Your task to perform on an android device: Open calendar and show me the third week of next month Image 0: 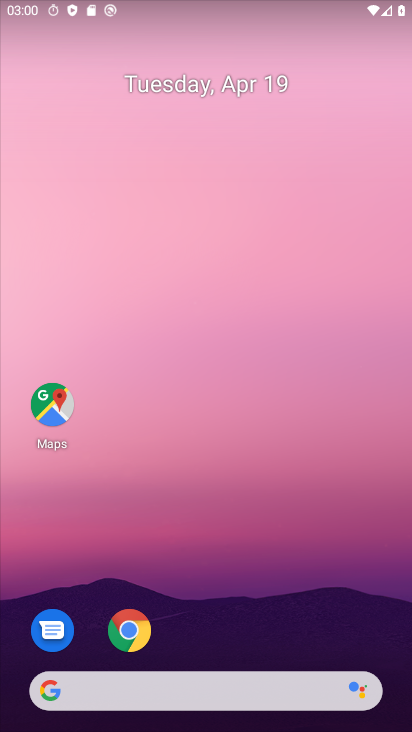
Step 0: drag from (269, 414) to (264, 89)
Your task to perform on an android device: Open calendar and show me the third week of next month Image 1: 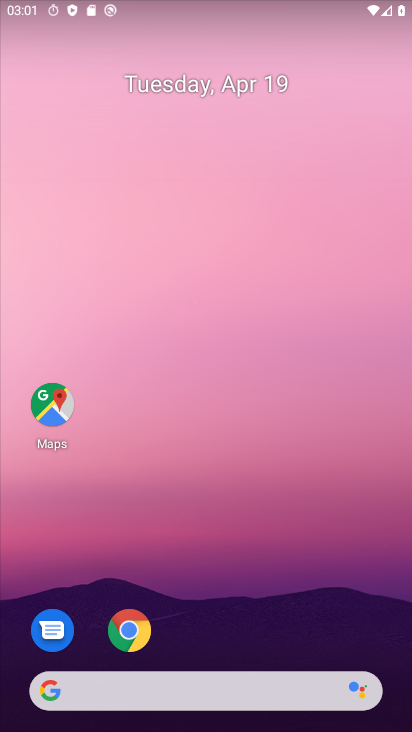
Step 1: drag from (291, 605) to (280, 124)
Your task to perform on an android device: Open calendar and show me the third week of next month Image 2: 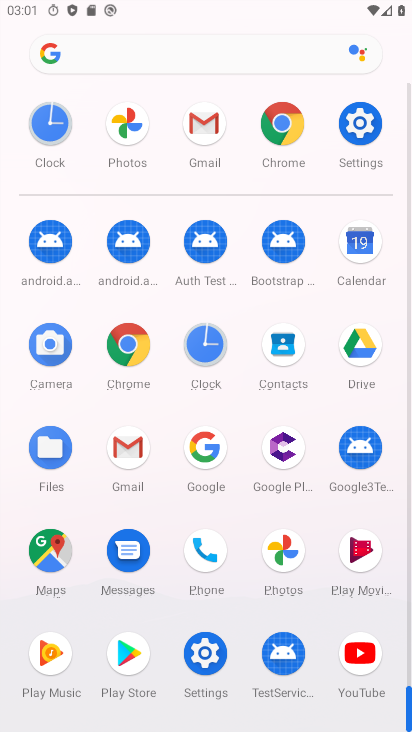
Step 2: click (362, 239)
Your task to perform on an android device: Open calendar and show me the third week of next month Image 3: 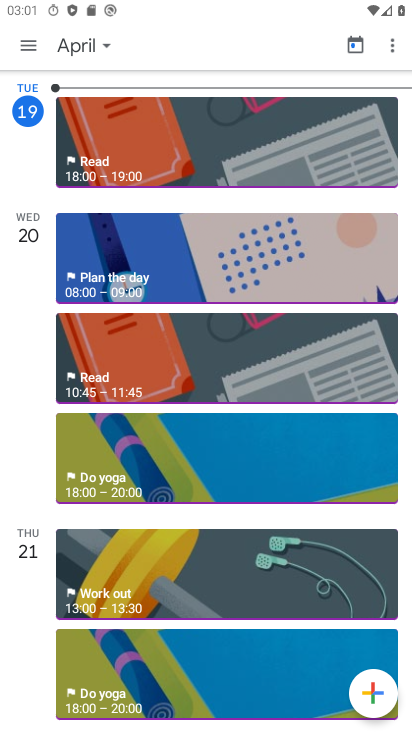
Step 3: click (85, 46)
Your task to perform on an android device: Open calendar and show me the third week of next month Image 4: 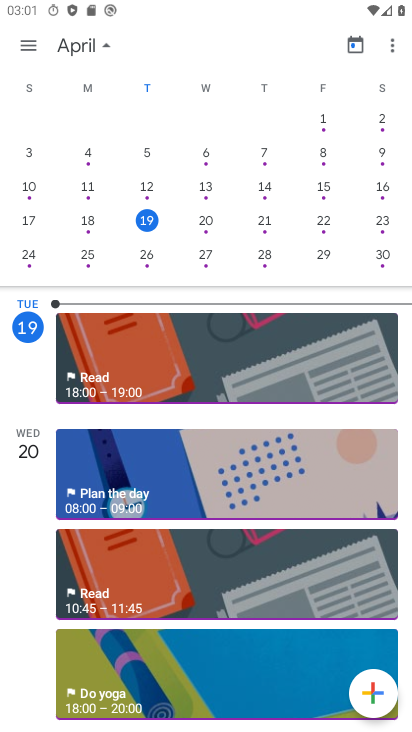
Step 4: drag from (350, 210) to (0, 192)
Your task to perform on an android device: Open calendar and show me the third week of next month Image 5: 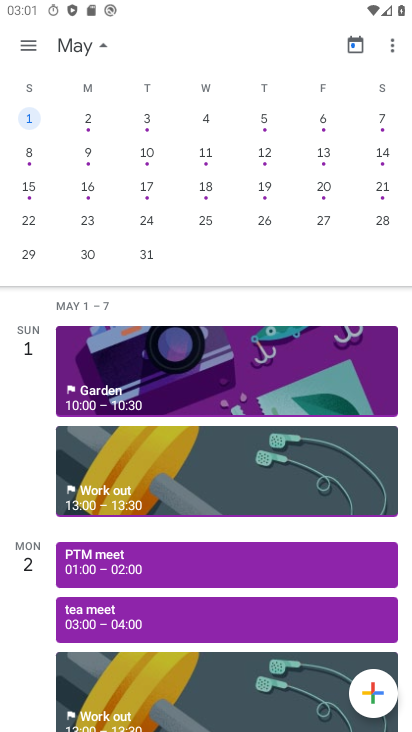
Step 5: click (31, 183)
Your task to perform on an android device: Open calendar and show me the third week of next month Image 6: 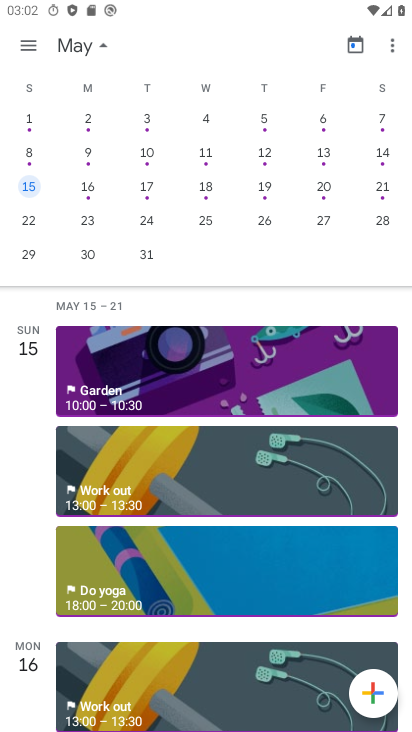
Step 6: task complete